Your task to perform on an android device: read, delete, or share a saved page in the chrome app Image 0: 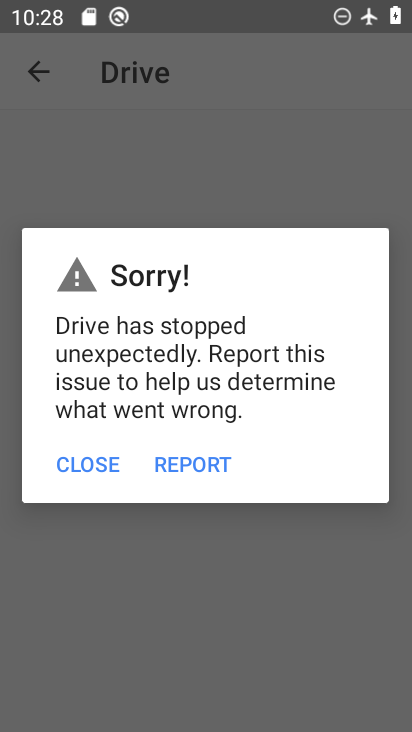
Step 0: task impossible